Your task to perform on an android device: Open CNN.com Image 0: 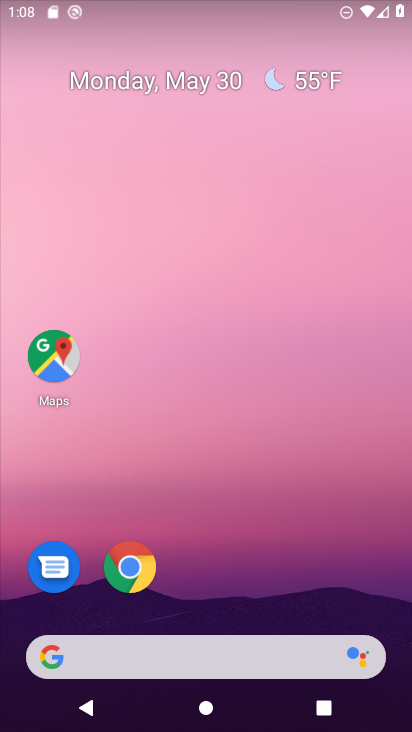
Step 0: click (128, 560)
Your task to perform on an android device: Open CNN.com Image 1: 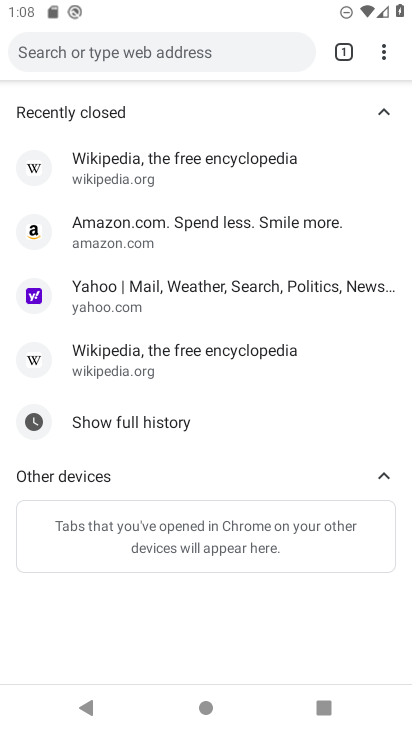
Step 1: click (342, 53)
Your task to perform on an android device: Open CNN.com Image 2: 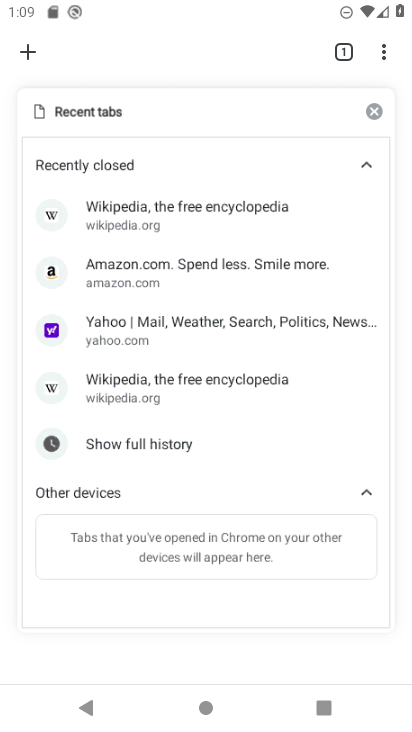
Step 2: click (373, 107)
Your task to perform on an android device: Open CNN.com Image 3: 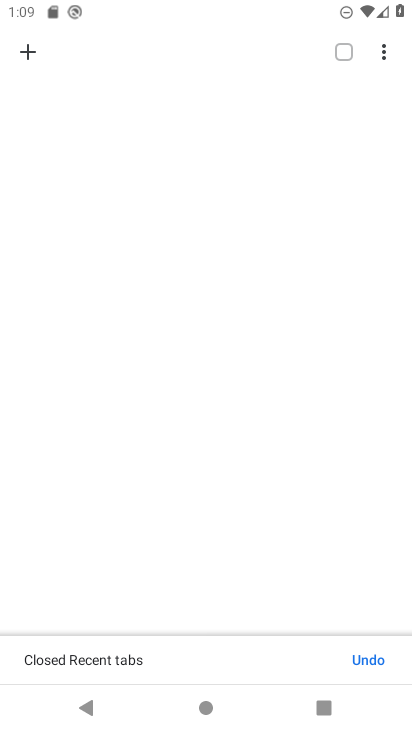
Step 3: click (34, 51)
Your task to perform on an android device: Open CNN.com Image 4: 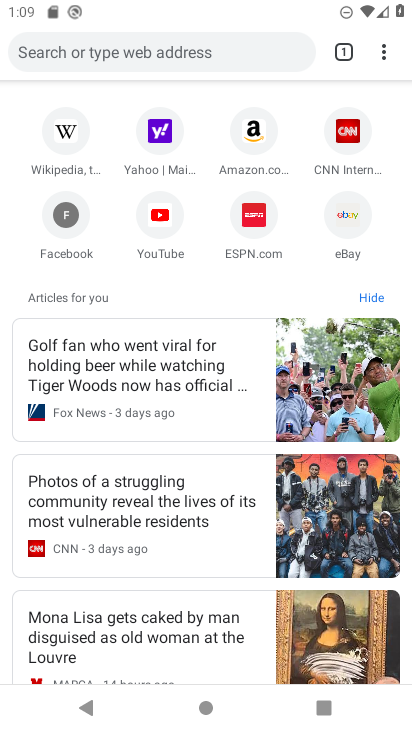
Step 4: click (110, 51)
Your task to perform on an android device: Open CNN.com Image 5: 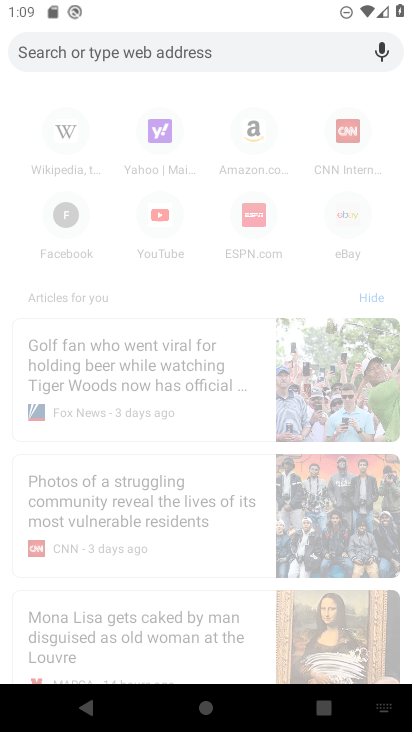
Step 5: type "cnn.com"
Your task to perform on an android device: Open CNN.com Image 6: 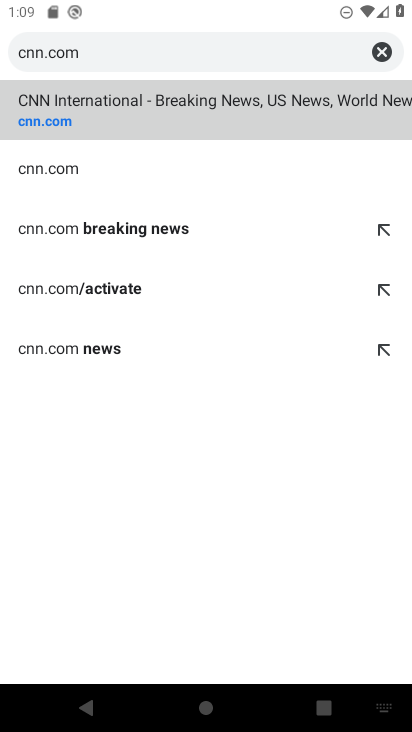
Step 6: click (108, 115)
Your task to perform on an android device: Open CNN.com Image 7: 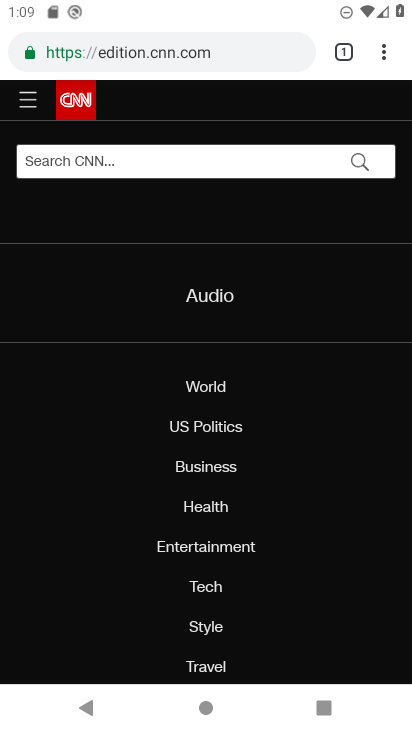
Step 7: click (250, 619)
Your task to perform on an android device: Open CNN.com Image 8: 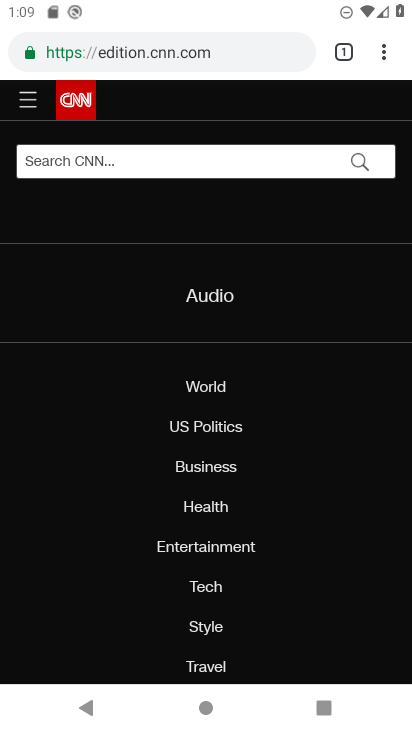
Step 8: drag from (241, 447) to (229, 140)
Your task to perform on an android device: Open CNN.com Image 9: 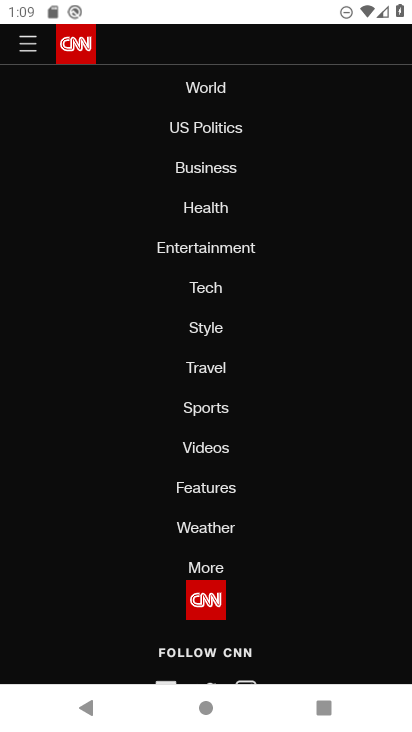
Step 9: click (219, 329)
Your task to perform on an android device: Open CNN.com Image 10: 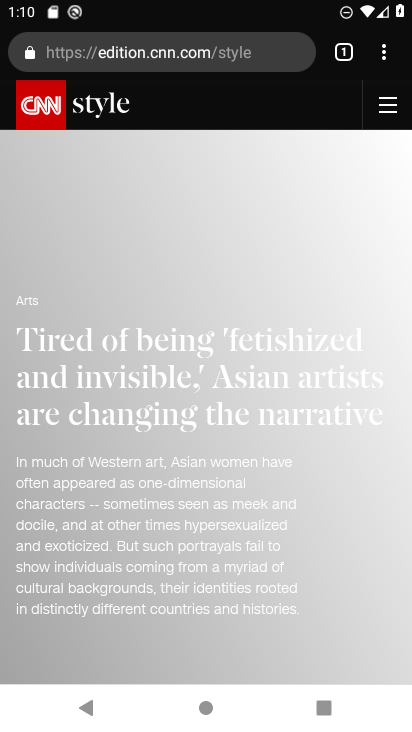
Step 10: task complete